Your task to perform on an android device: Open Chrome and go to settings Image 0: 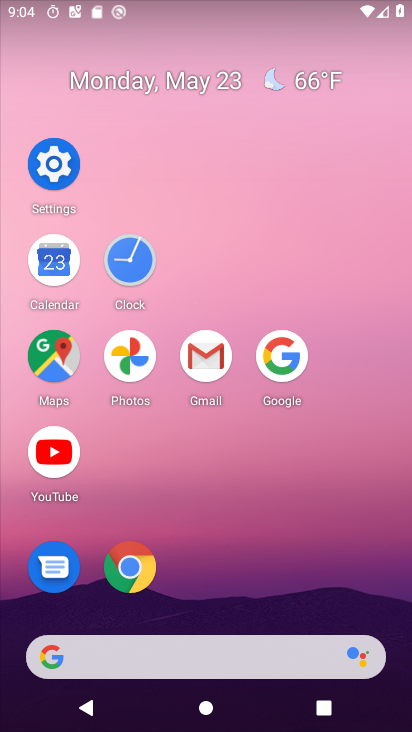
Step 0: click (137, 565)
Your task to perform on an android device: Open Chrome and go to settings Image 1: 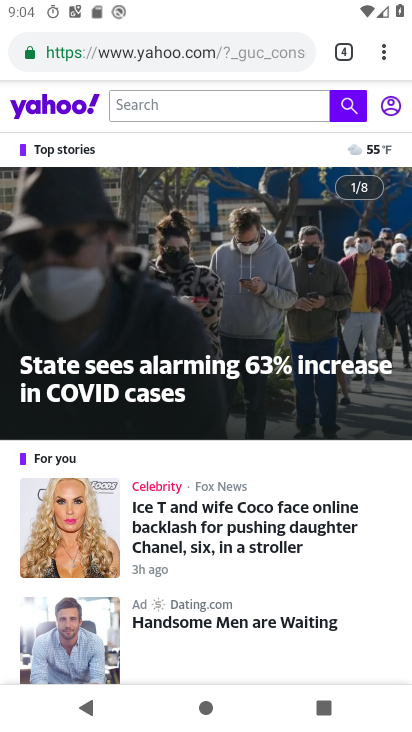
Step 1: click (381, 53)
Your task to perform on an android device: Open Chrome and go to settings Image 2: 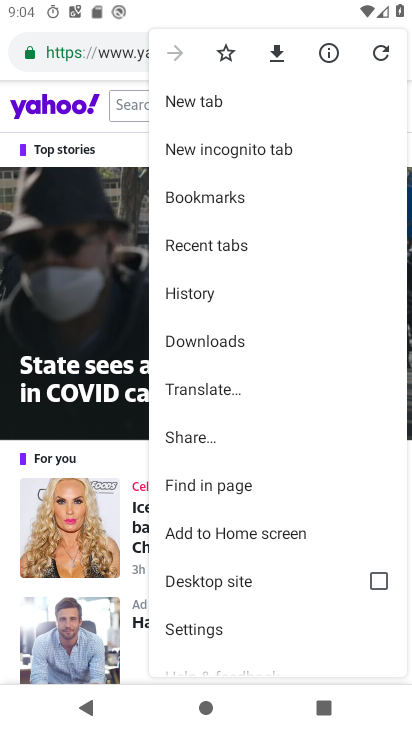
Step 2: click (219, 622)
Your task to perform on an android device: Open Chrome and go to settings Image 3: 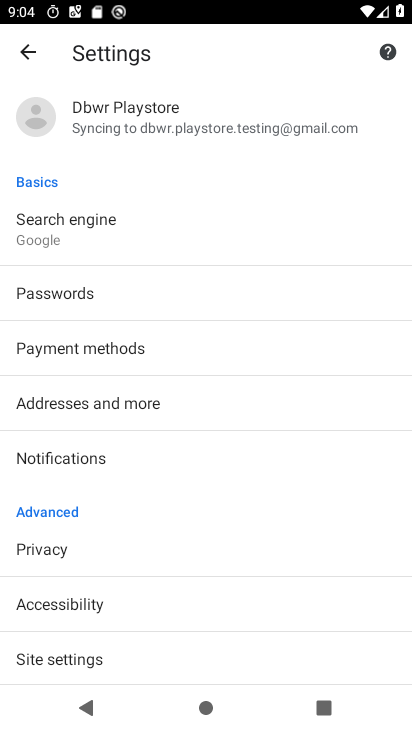
Step 3: task complete